Your task to perform on an android device: Go to eBay Image 0: 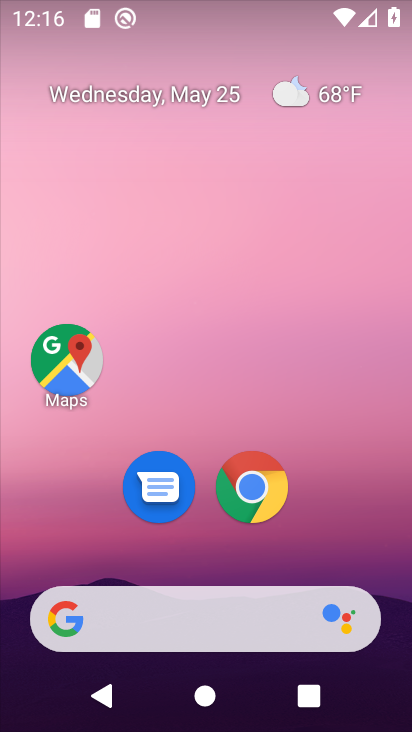
Step 0: click (252, 489)
Your task to perform on an android device: Go to eBay Image 1: 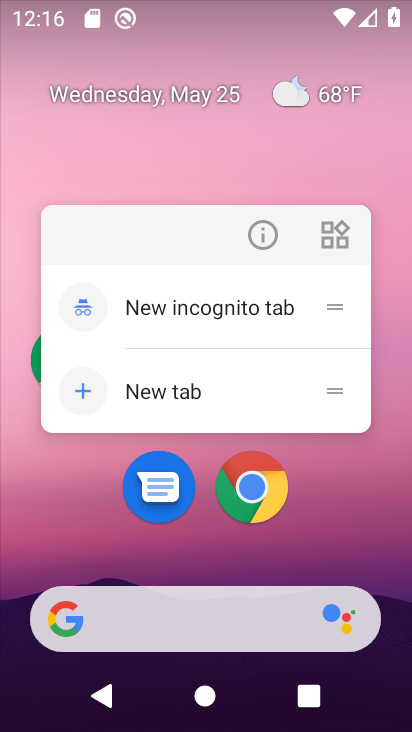
Step 1: click (263, 482)
Your task to perform on an android device: Go to eBay Image 2: 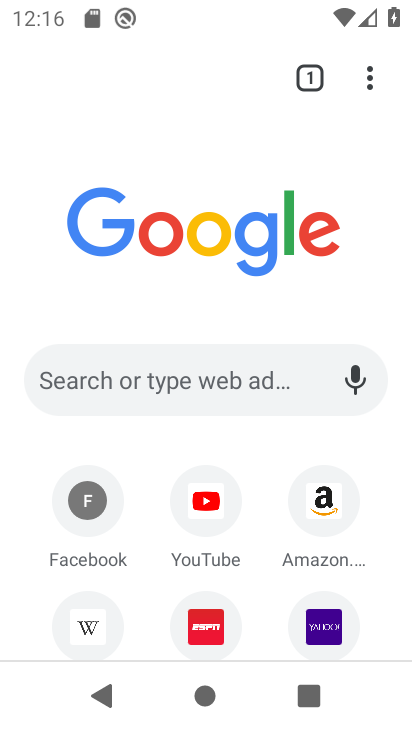
Step 2: click (113, 369)
Your task to perform on an android device: Go to eBay Image 3: 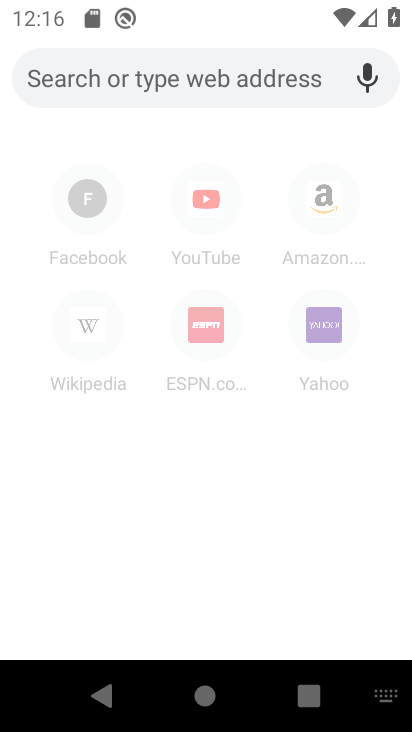
Step 3: type "ebay"
Your task to perform on an android device: Go to eBay Image 4: 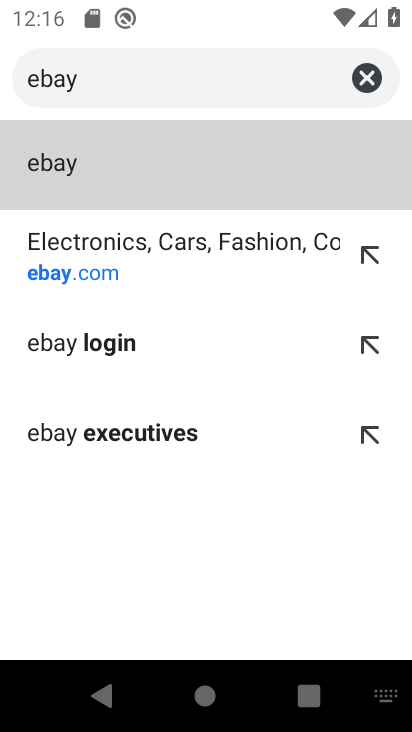
Step 4: click (143, 266)
Your task to perform on an android device: Go to eBay Image 5: 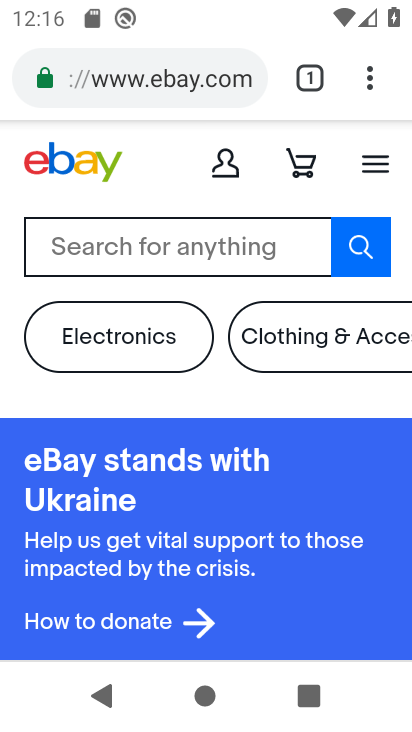
Step 5: task complete